Your task to perform on an android device: turn off picture-in-picture Image 0: 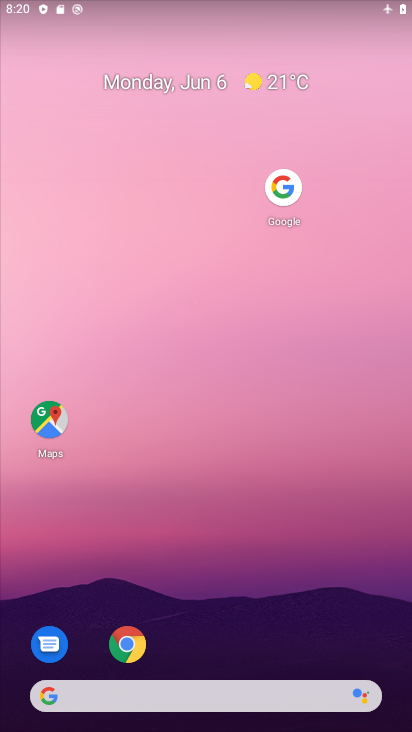
Step 0: drag from (234, 688) to (239, 2)
Your task to perform on an android device: turn off picture-in-picture Image 1: 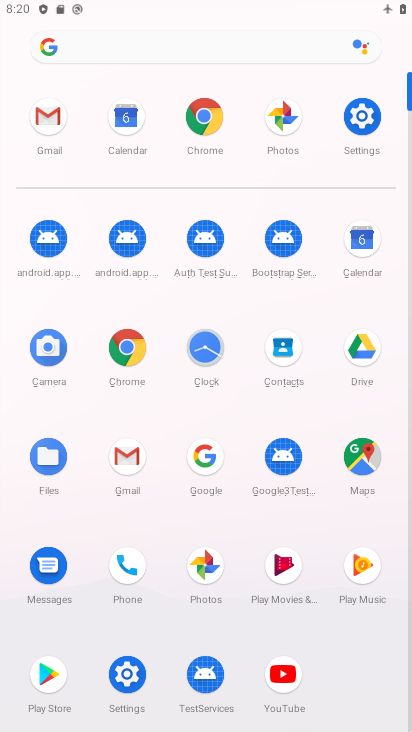
Step 1: click (348, 114)
Your task to perform on an android device: turn off picture-in-picture Image 2: 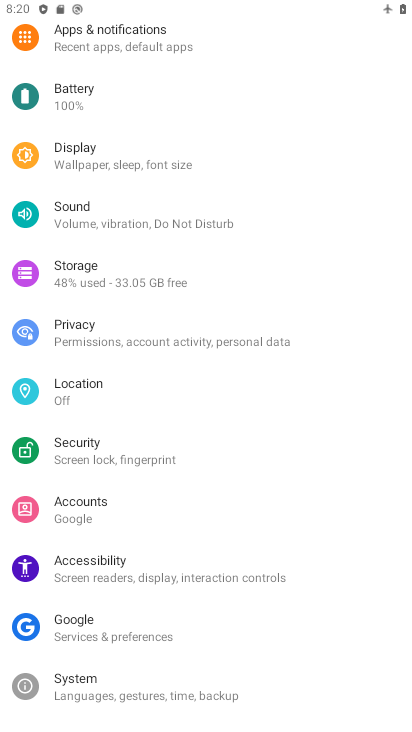
Step 2: click (69, 29)
Your task to perform on an android device: turn off picture-in-picture Image 3: 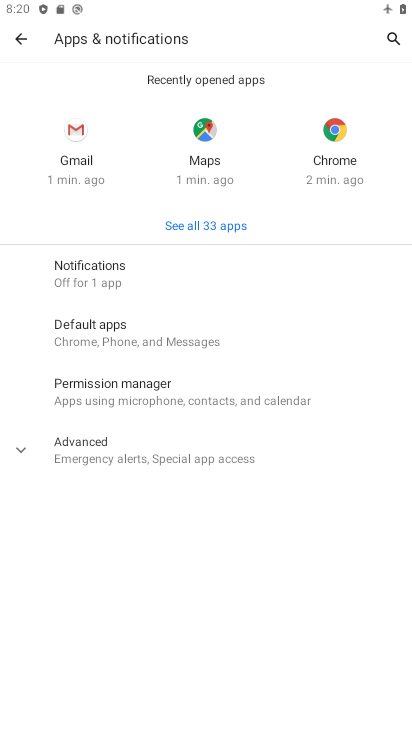
Step 3: click (126, 438)
Your task to perform on an android device: turn off picture-in-picture Image 4: 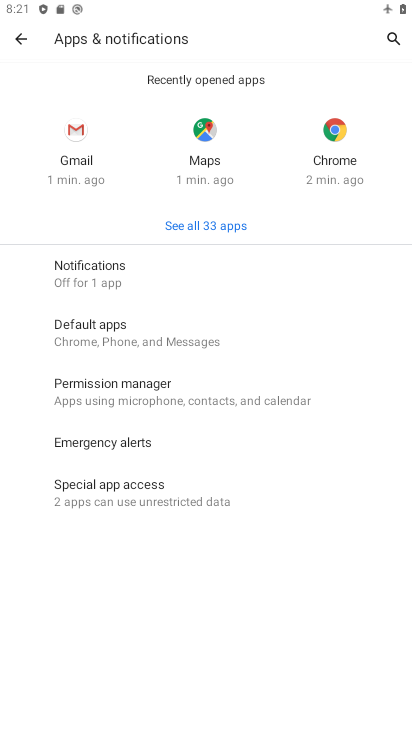
Step 4: click (132, 478)
Your task to perform on an android device: turn off picture-in-picture Image 5: 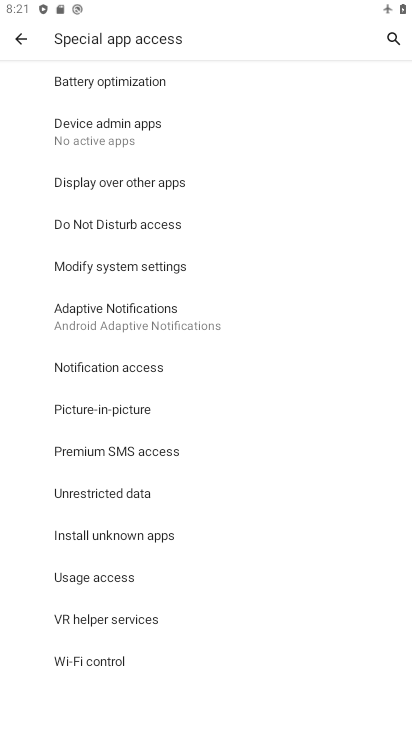
Step 5: task complete